Your task to perform on an android device: open wifi settings Image 0: 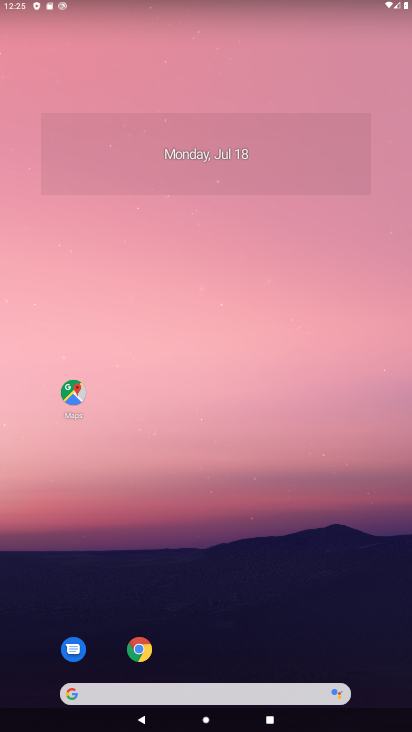
Step 0: drag from (44, 667) to (235, 296)
Your task to perform on an android device: open wifi settings Image 1: 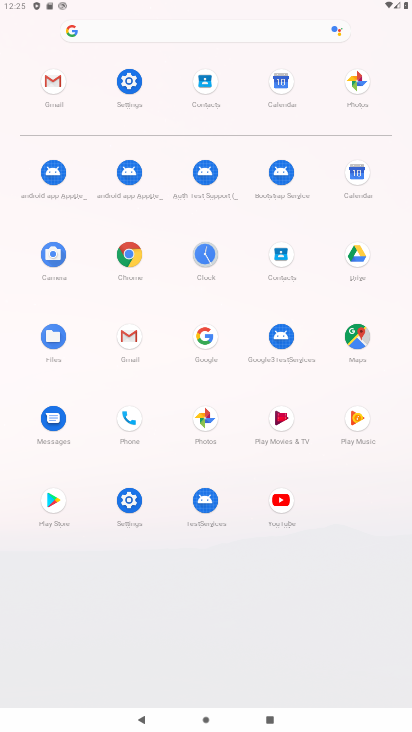
Step 1: click (129, 509)
Your task to perform on an android device: open wifi settings Image 2: 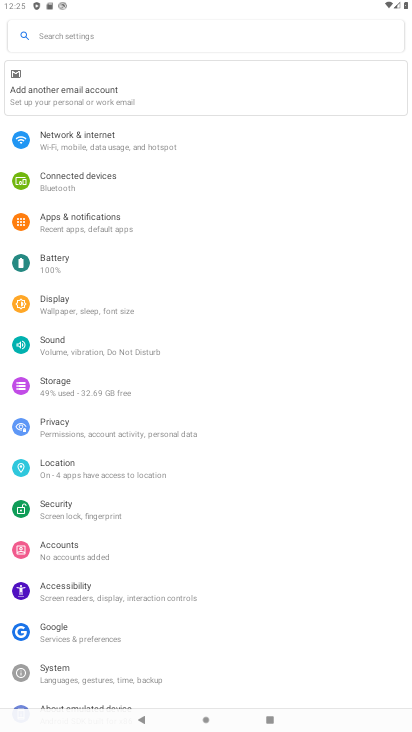
Step 2: click (83, 132)
Your task to perform on an android device: open wifi settings Image 3: 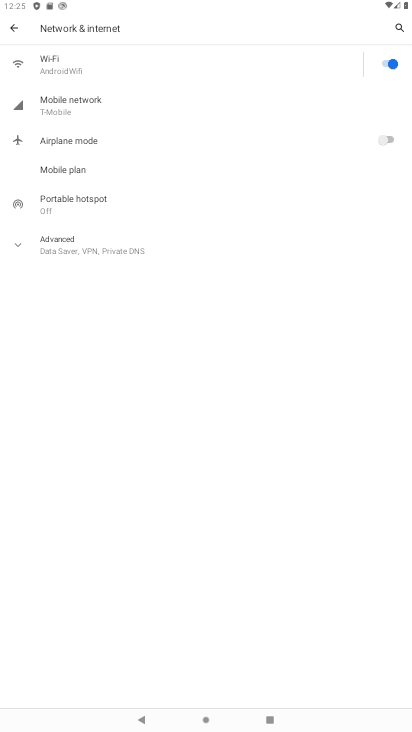
Step 3: task complete